Your task to perform on an android device: change timer sound Image 0: 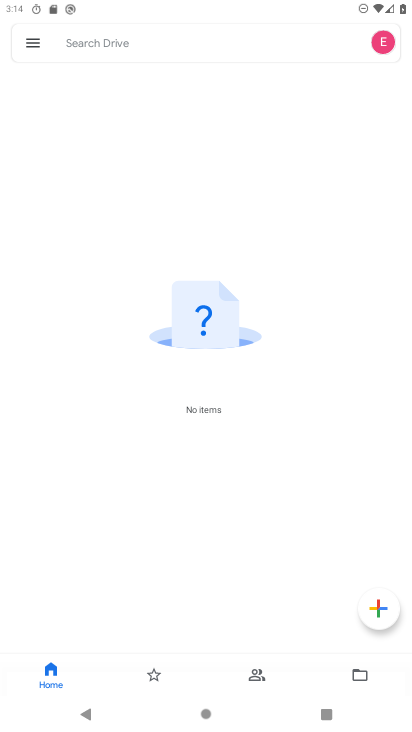
Step 0: press home button
Your task to perform on an android device: change timer sound Image 1: 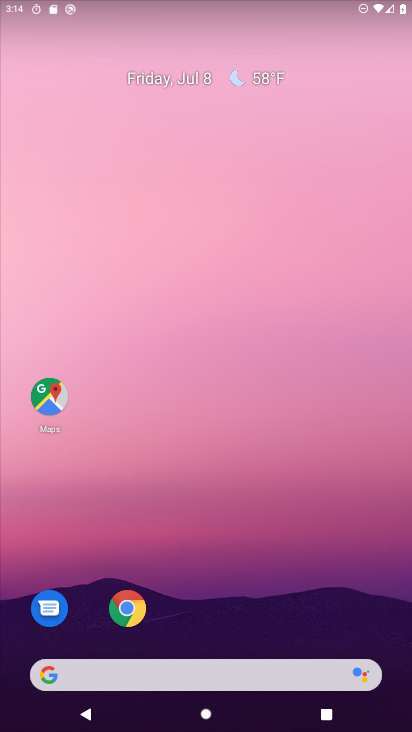
Step 1: drag from (285, 713) to (255, 84)
Your task to perform on an android device: change timer sound Image 2: 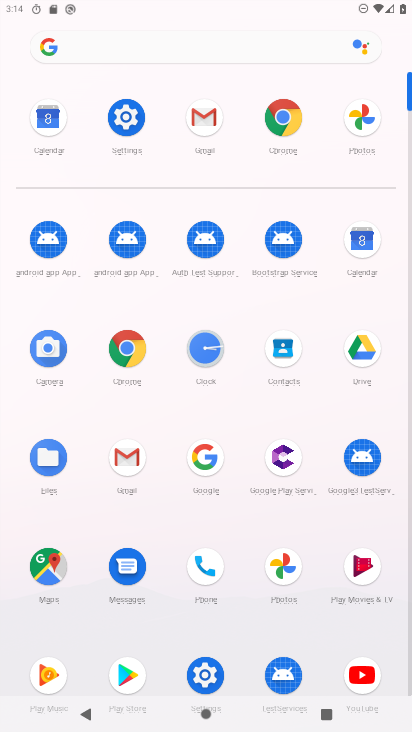
Step 2: click (205, 346)
Your task to perform on an android device: change timer sound Image 3: 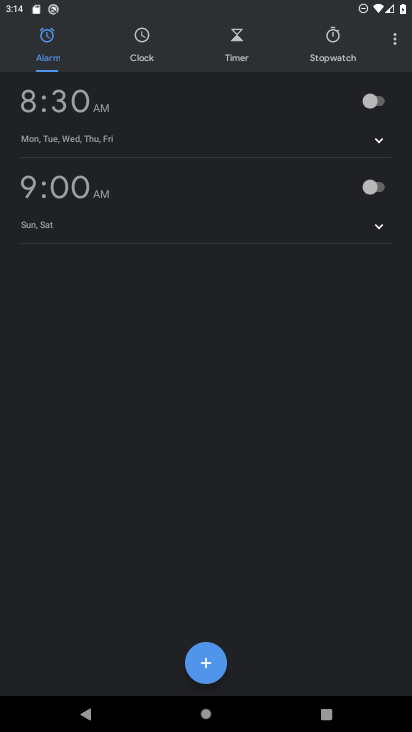
Step 3: click (396, 44)
Your task to perform on an android device: change timer sound Image 4: 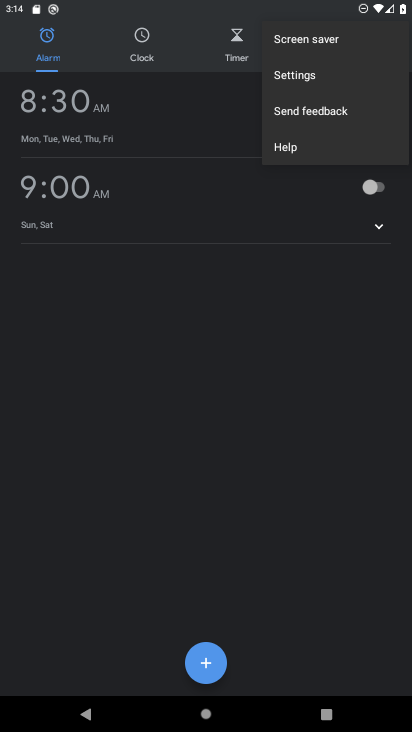
Step 4: click (293, 78)
Your task to perform on an android device: change timer sound Image 5: 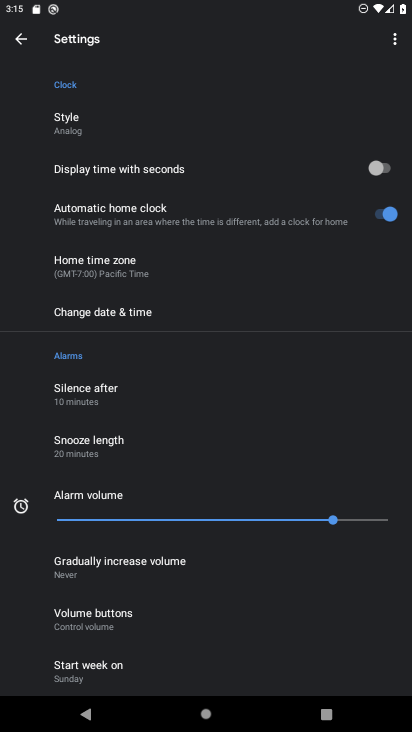
Step 5: drag from (168, 670) to (164, 278)
Your task to perform on an android device: change timer sound Image 6: 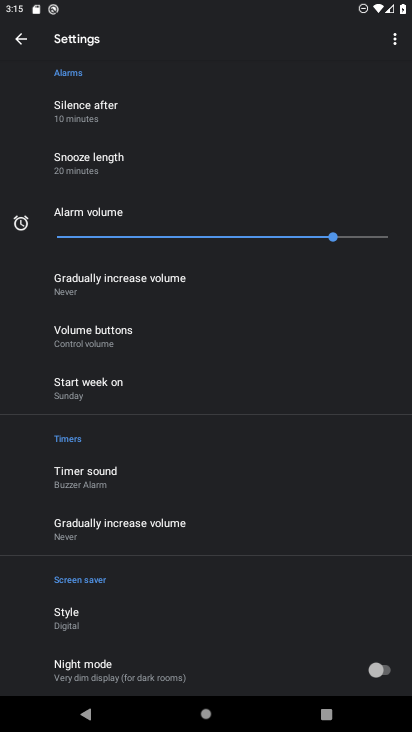
Step 6: click (105, 470)
Your task to perform on an android device: change timer sound Image 7: 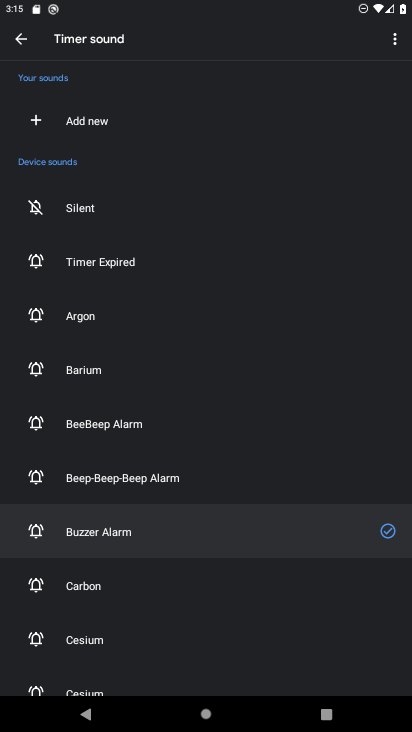
Step 7: click (82, 645)
Your task to perform on an android device: change timer sound Image 8: 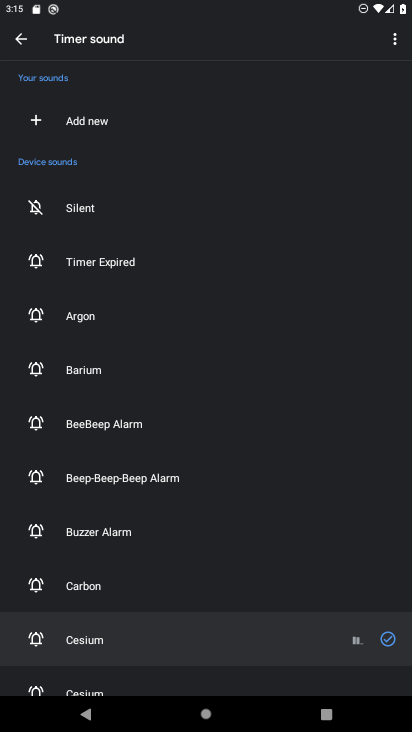
Step 8: task complete